Your task to perform on an android device: empty trash in the gmail app Image 0: 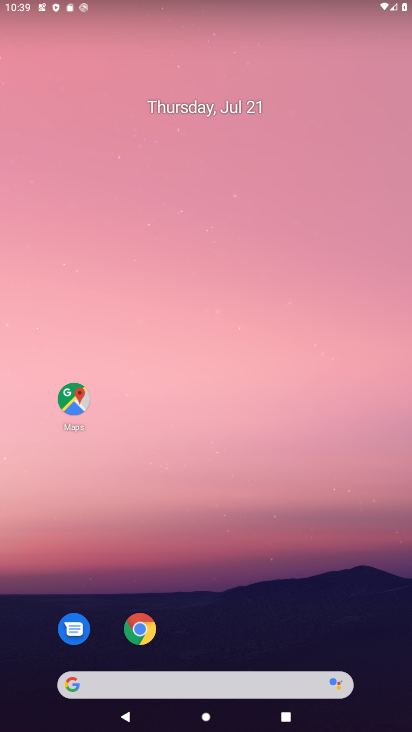
Step 0: drag from (227, 542) to (243, 191)
Your task to perform on an android device: empty trash in the gmail app Image 1: 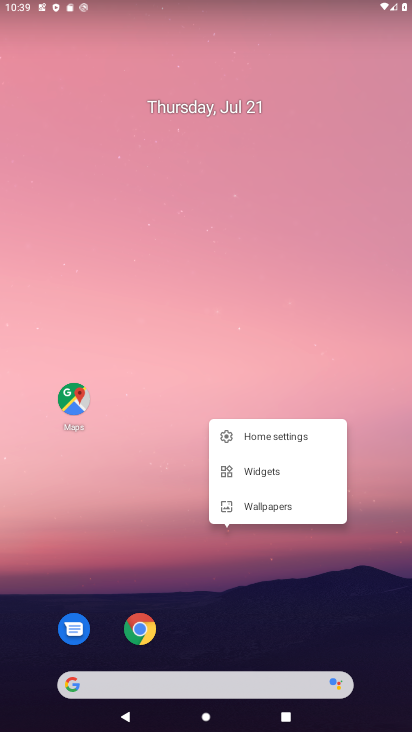
Step 1: click (217, 273)
Your task to perform on an android device: empty trash in the gmail app Image 2: 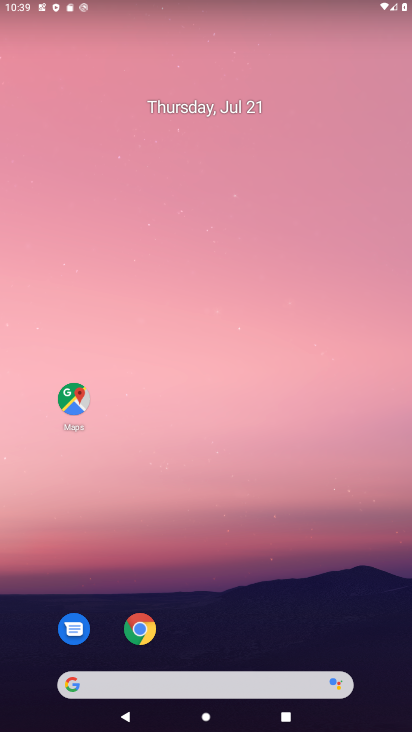
Step 2: drag from (253, 544) to (269, 225)
Your task to perform on an android device: empty trash in the gmail app Image 3: 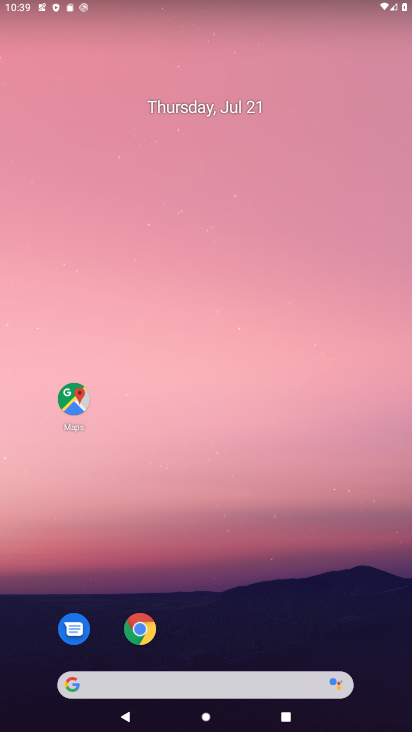
Step 3: drag from (230, 556) to (240, 321)
Your task to perform on an android device: empty trash in the gmail app Image 4: 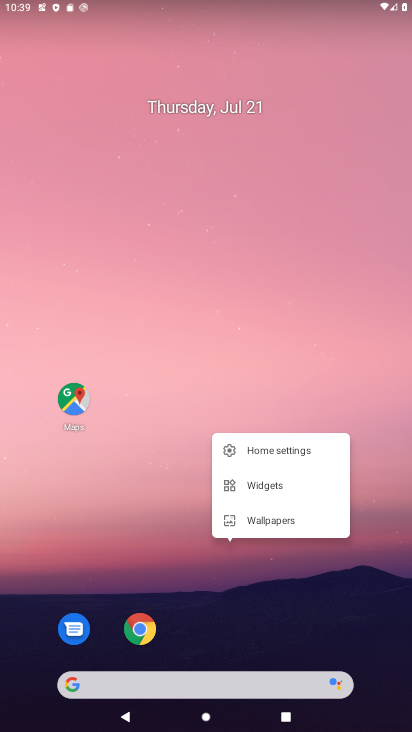
Step 4: click (211, 353)
Your task to perform on an android device: empty trash in the gmail app Image 5: 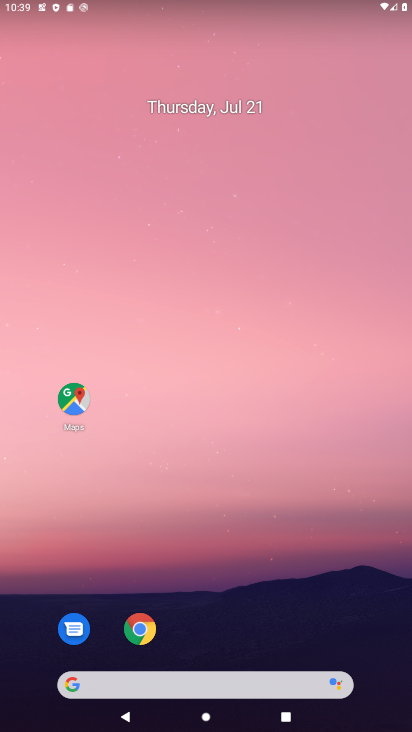
Step 5: drag from (235, 555) to (268, 209)
Your task to perform on an android device: empty trash in the gmail app Image 6: 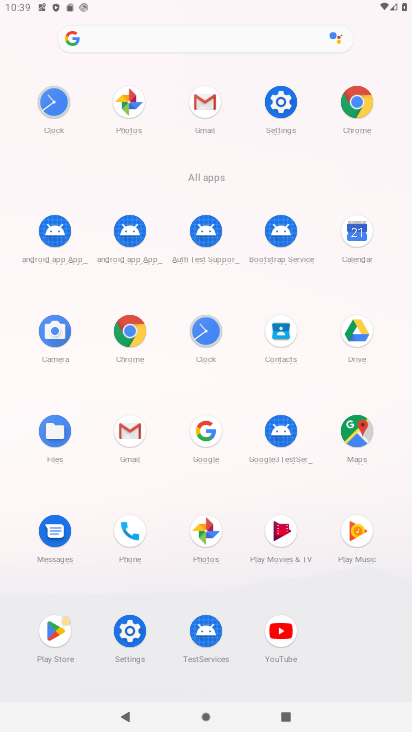
Step 6: click (130, 429)
Your task to perform on an android device: empty trash in the gmail app Image 7: 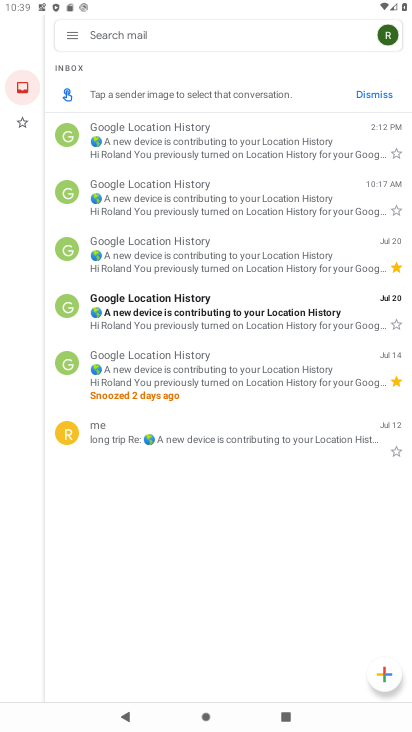
Step 7: click (73, 40)
Your task to perform on an android device: empty trash in the gmail app Image 8: 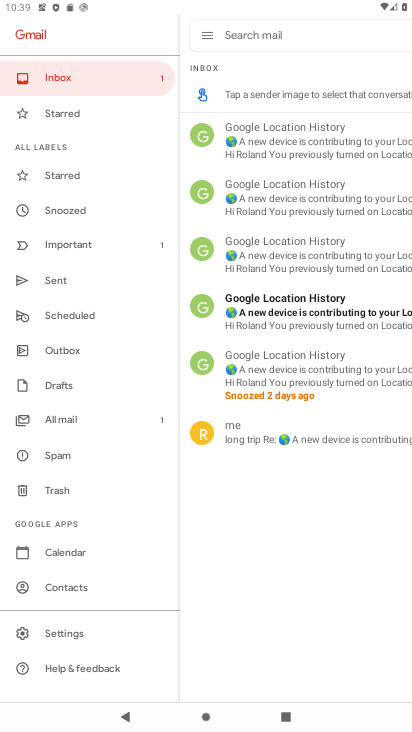
Step 8: click (52, 492)
Your task to perform on an android device: empty trash in the gmail app Image 9: 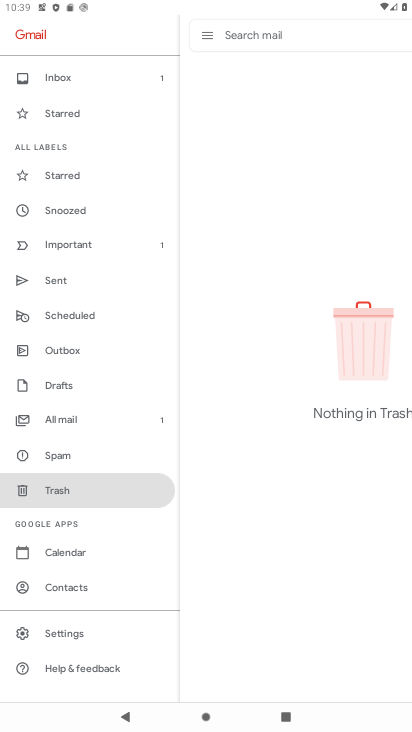
Step 9: task complete